Your task to perform on an android device: Search for "bose soundlink mini" on walmart, select the first entry, and add it to the cart. Image 0: 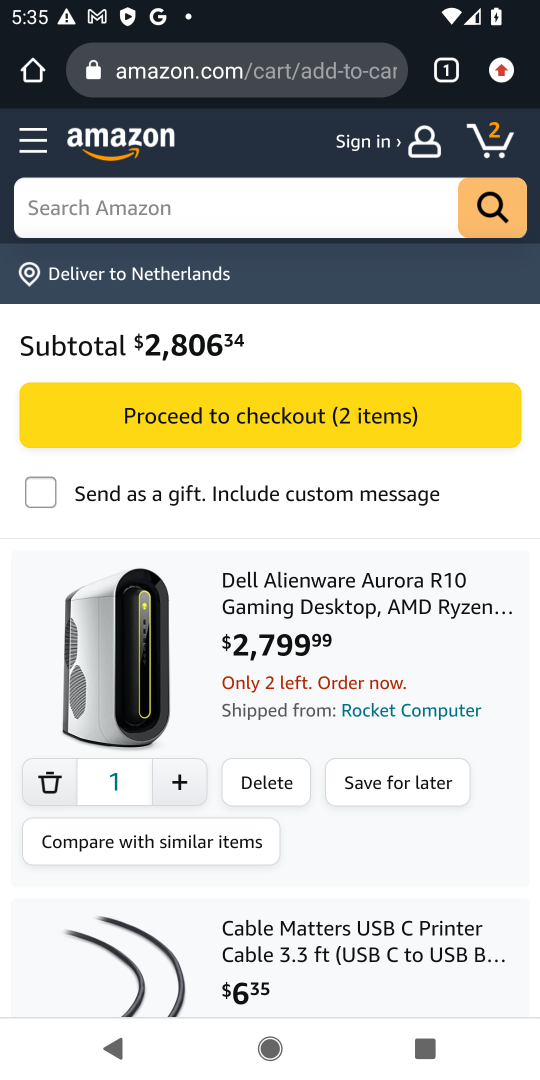
Step 0: press home button
Your task to perform on an android device: Search for "bose soundlink mini" on walmart, select the first entry, and add it to the cart. Image 1: 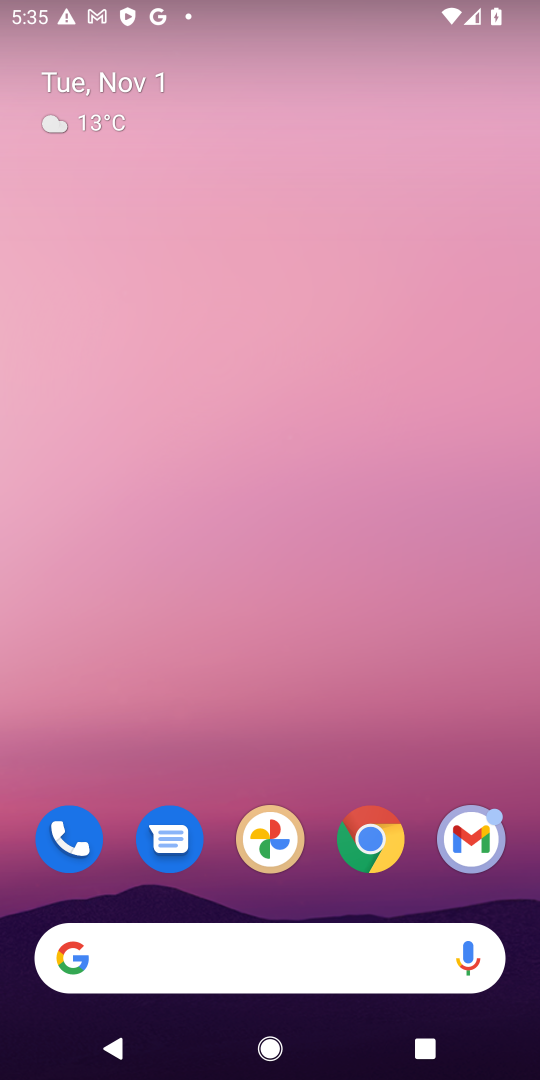
Step 1: drag from (326, 907) to (318, 67)
Your task to perform on an android device: Search for "bose soundlink mini" on walmart, select the first entry, and add it to the cart. Image 2: 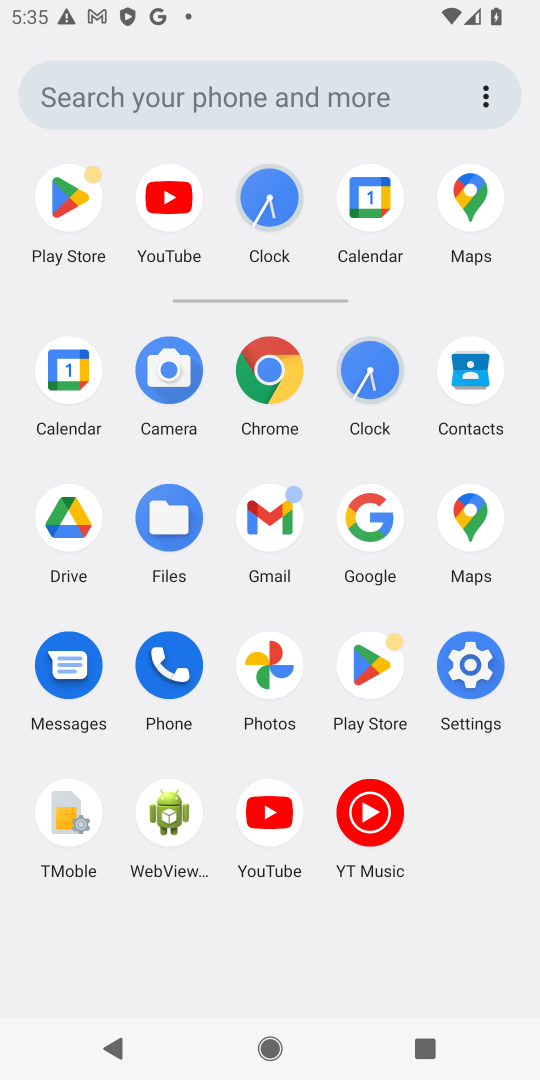
Step 2: click (277, 390)
Your task to perform on an android device: Search for "bose soundlink mini" on walmart, select the first entry, and add it to the cart. Image 3: 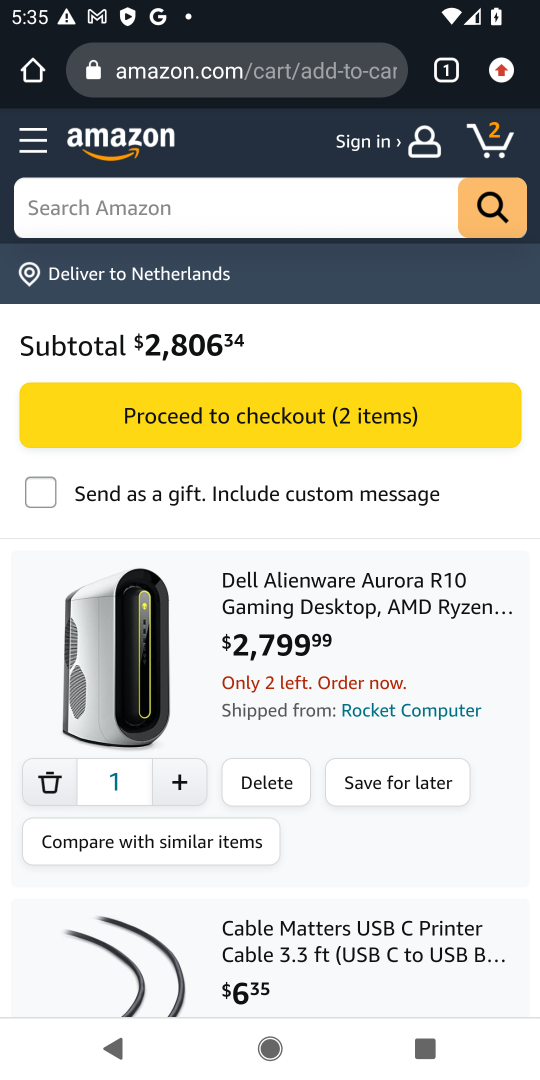
Step 3: click (234, 86)
Your task to perform on an android device: Search for "bose soundlink mini" on walmart, select the first entry, and add it to the cart. Image 4: 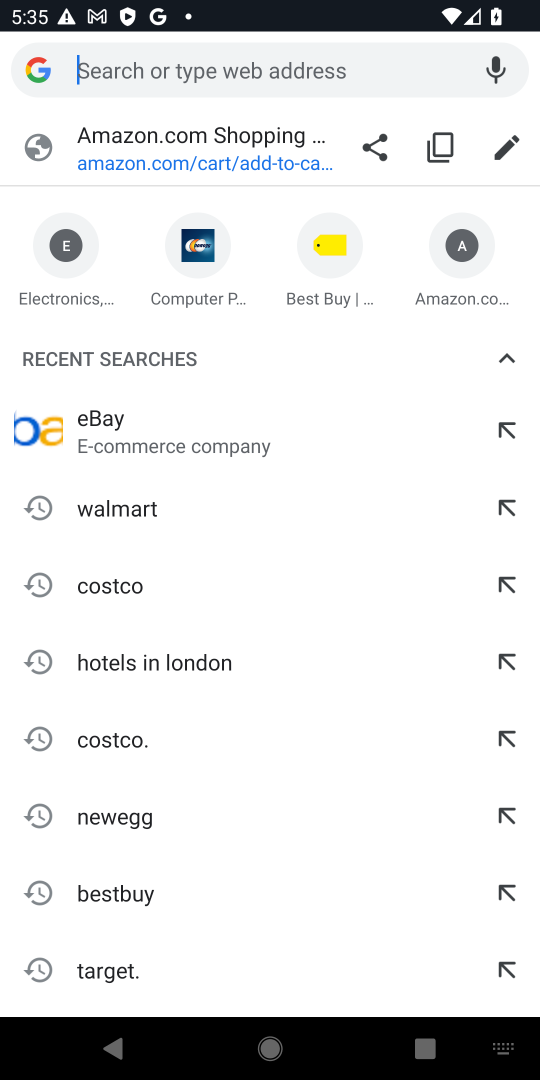
Step 4: type "walmart.com"
Your task to perform on an android device: Search for "bose soundlink mini" on walmart, select the first entry, and add it to the cart. Image 5: 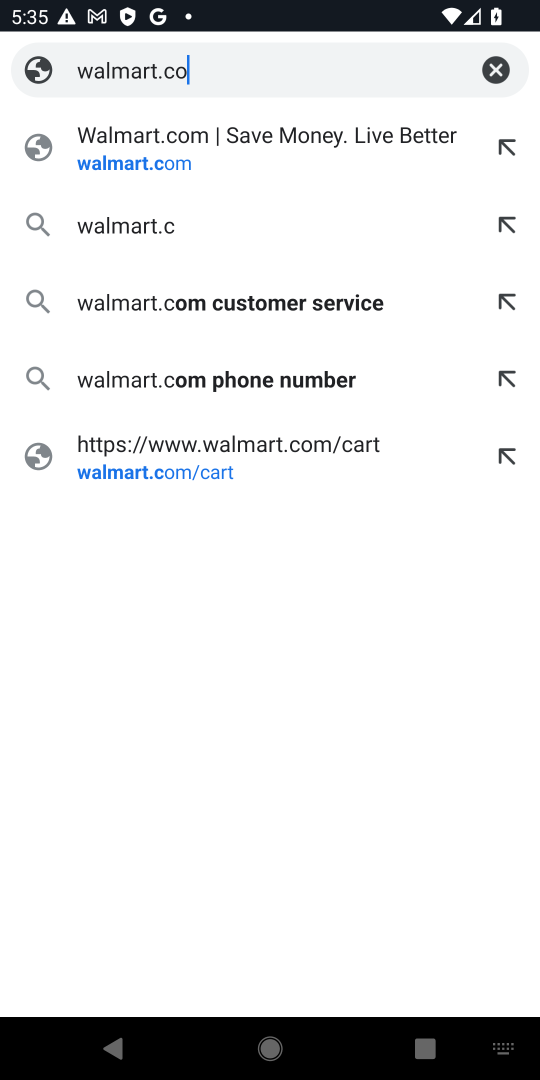
Step 5: press enter
Your task to perform on an android device: Search for "bose soundlink mini" on walmart, select the first entry, and add it to the cart. Image 6: 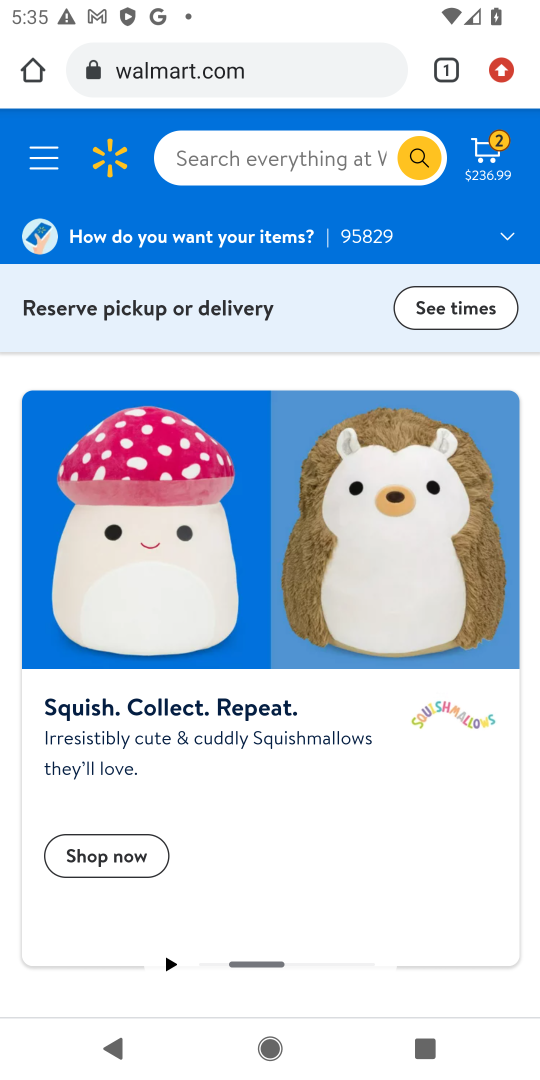
Step 6: click (303, 167)
Your task to perform on an android device: Search for "bose soundlink mini" on walmart, select the first entry, and add it to the cart. Image 7: 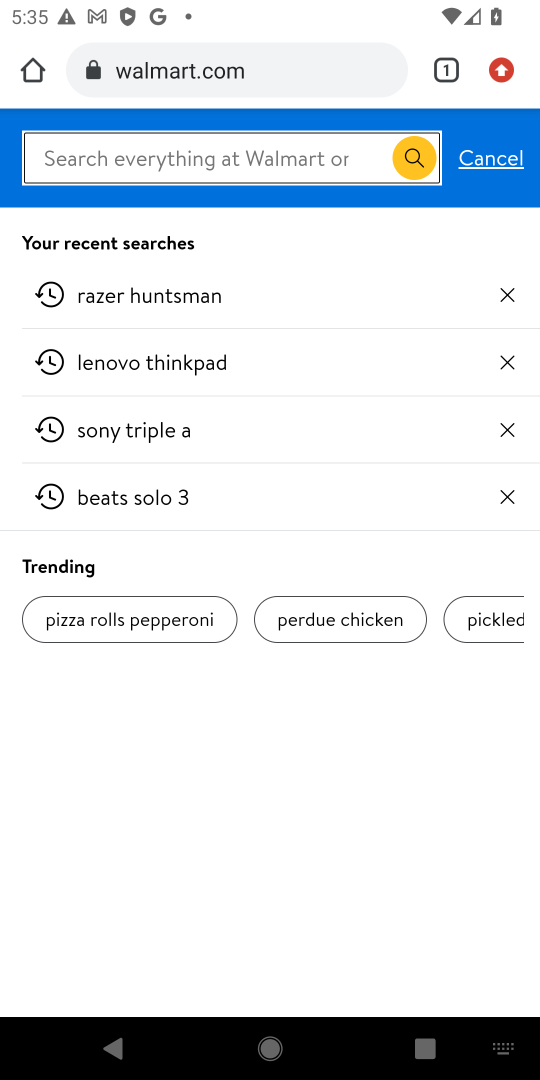
Step 7: type "bose soundlink mini"
Your task to perform on an android device: Search for "bose soundlink mini" on walmart, select the first entry, and add it to the cart. Image 8: 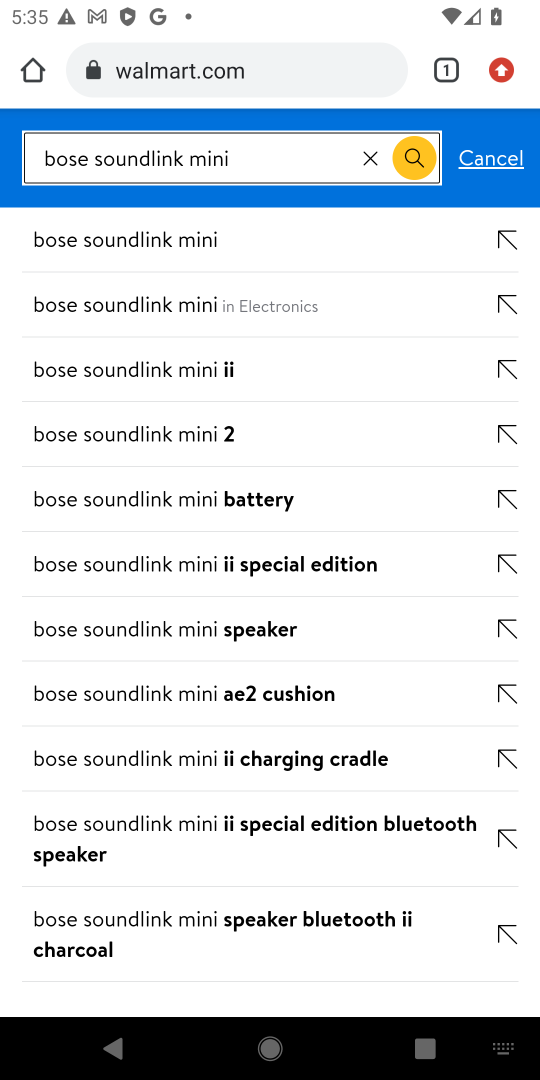
Step 8: press enter
Your task to perform on an android device: Search for "bose soundlink mini" on walmart, select the first entry, and add it to the cart. Image 9: 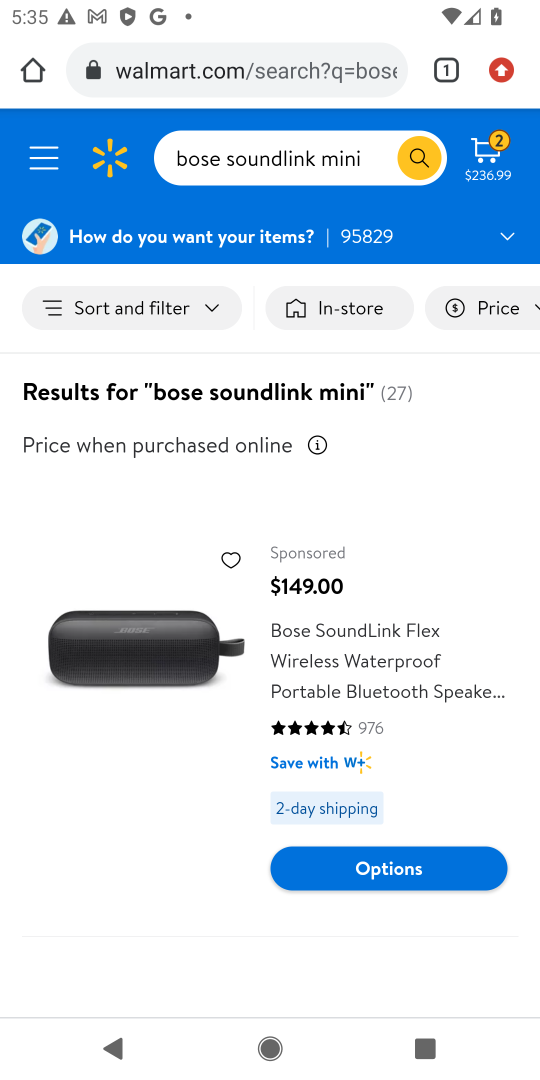
Step 9: task complete